Your task to perform on an android device: check data usage Image 0: 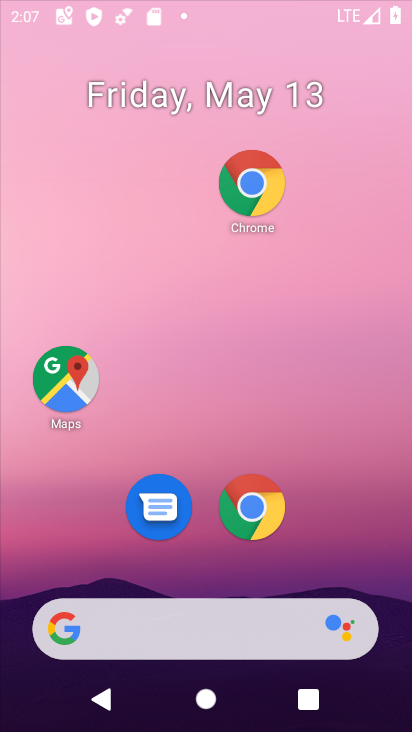
Step 0: click (122, 50)
Your task to perform on an android device: check data usage Image 1: 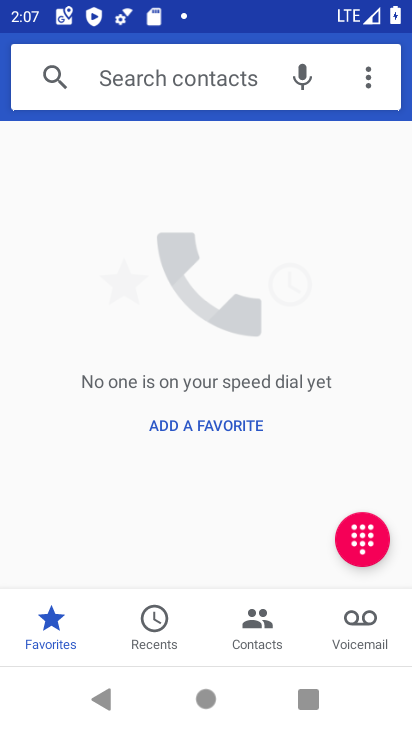
Step 1: press back button
Your task to perform on an android device: check data usage Image 2: 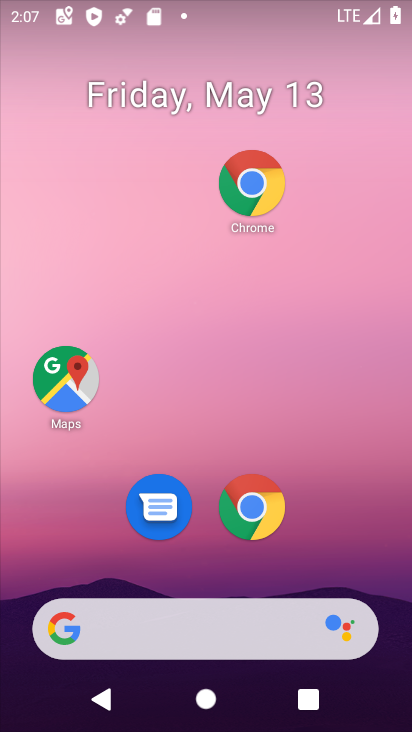
Step 2: drag from (284, 575) to (126, 111)
Your task to perform on an android device: check data usage Image 3: 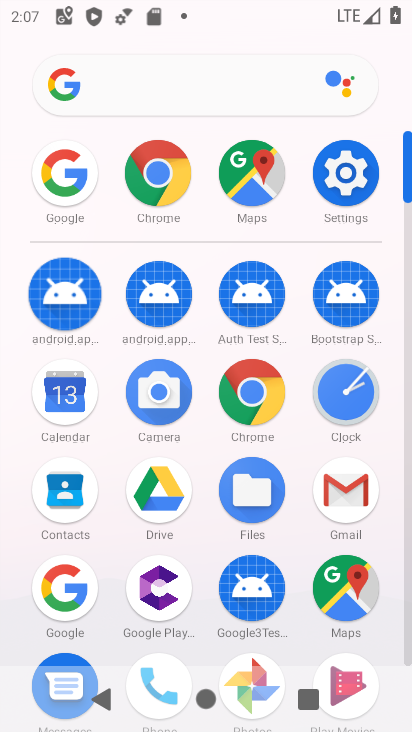
Step 3: click (352, 177)
Your task to perform on an android device: check data usage Image 4: 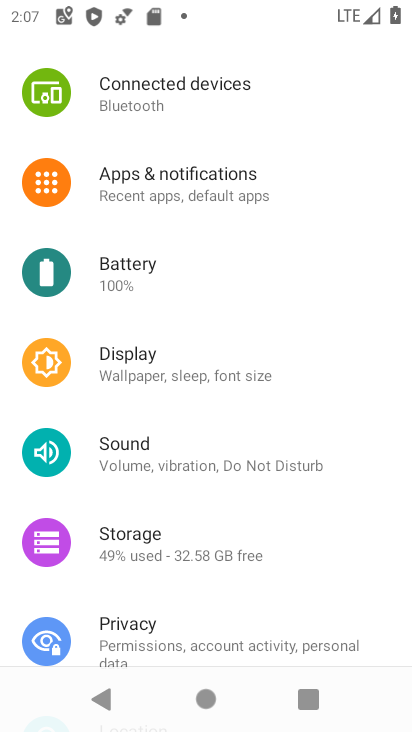
Step 4: drag from (182, 185) to (223, 457)
Your task to perform on an android device: check data usage Image 5: 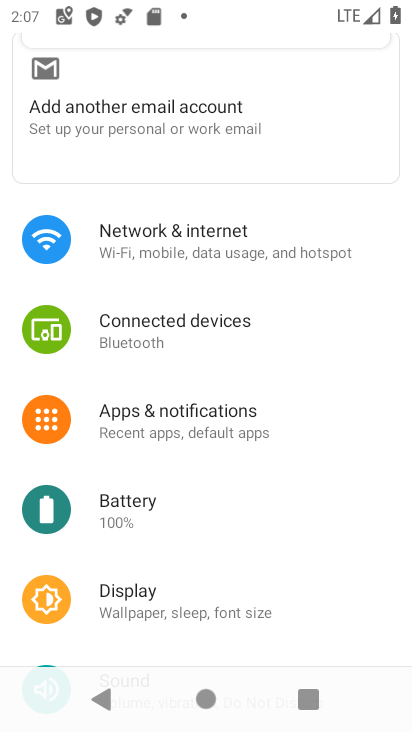
Step 5: click (164, 246)
Your task to perform on an android device: check data usage Image 6: 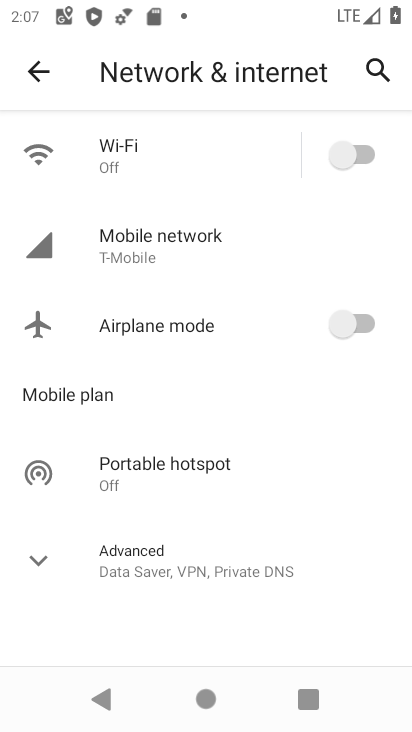
Step 6: task complete